Your task to perform on an android device: open wifi settings Image 0: 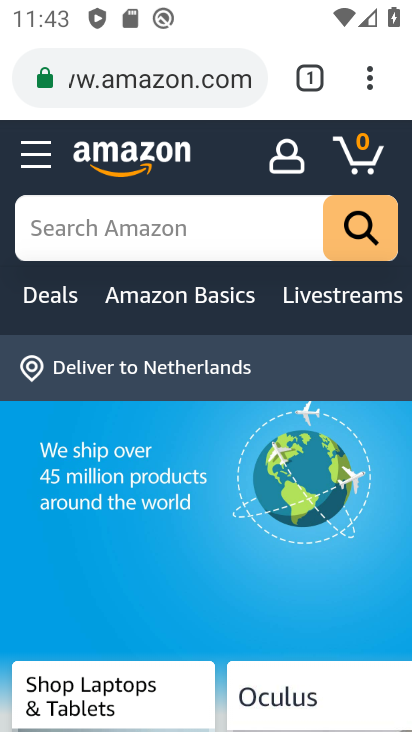
Step 0: press home button
Your task to perform on an android device: open wifi settings Image 1: 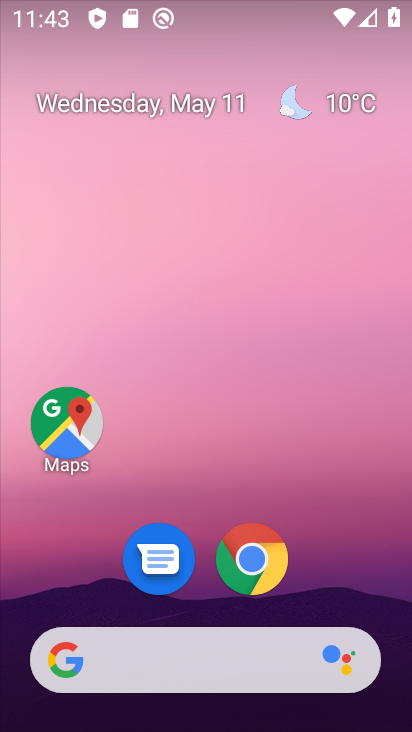
Step 1: drag from (272, 335) to (258, 220)
Your task to perform on an android device: open wifi settings Image 2: 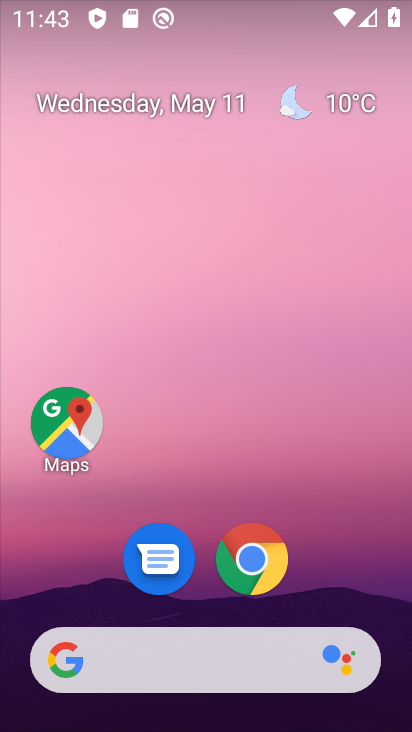
Step 2: drag from (333, 607) to (288, 54)
Your task to perform on an android device: open wifi settings Image 3: 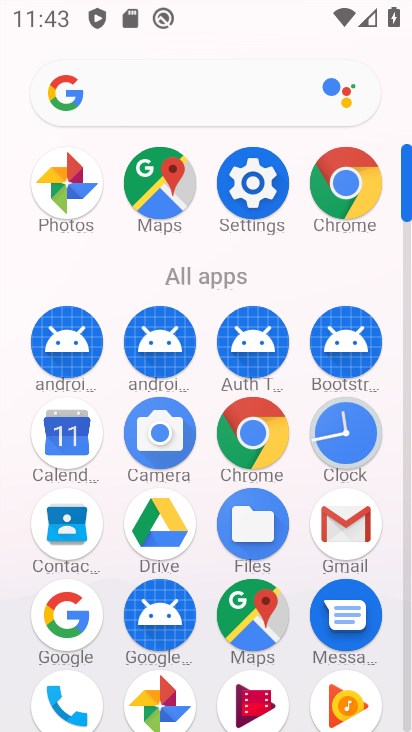
Step 3: click (243, 200)
Your task to perform on an android device: open wifi settings Image 4: 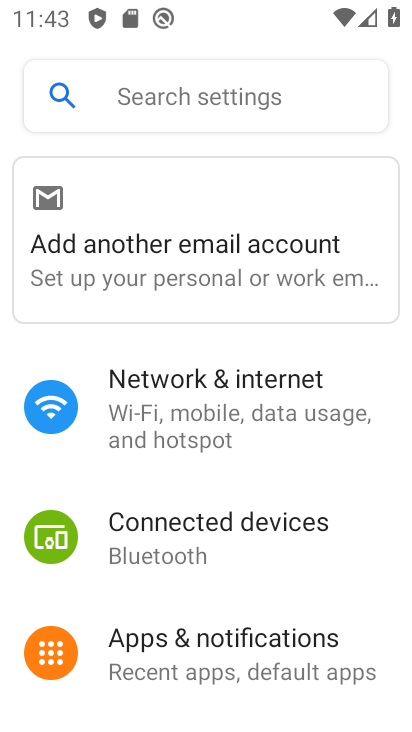
Step 4: click (162, 383)
Your task to perform on an android device: open wifi settings Image 5: 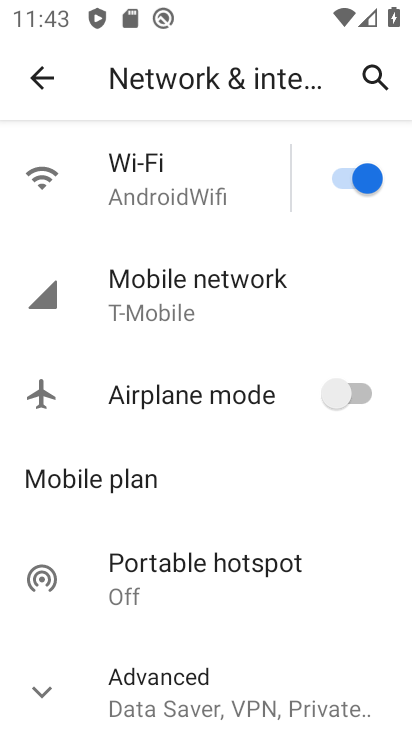
Step 5: click (158, 165)
Your task to perform on an android device: open wifi settings Image 6: 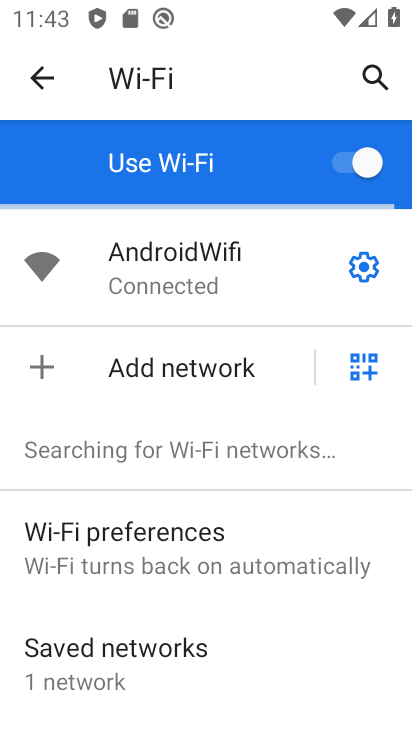
Step 6: task complete